Your task to perform on an android device: What is the news today? Image 0: 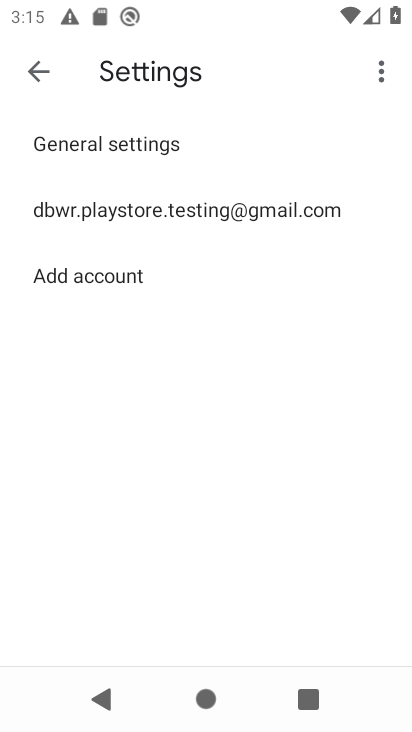
Step 0: press back button
Your task to perform on an android device: What is the news today? Image 1: 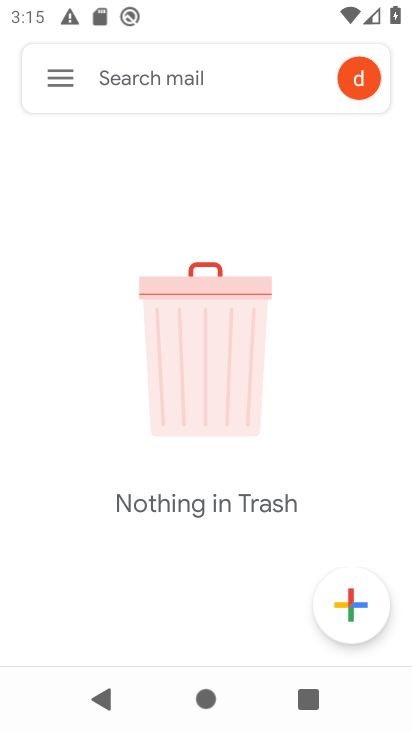
Step 1: task complete